Your task to perform on an android device: remove spam from my inbox in the gmail app Image 0: 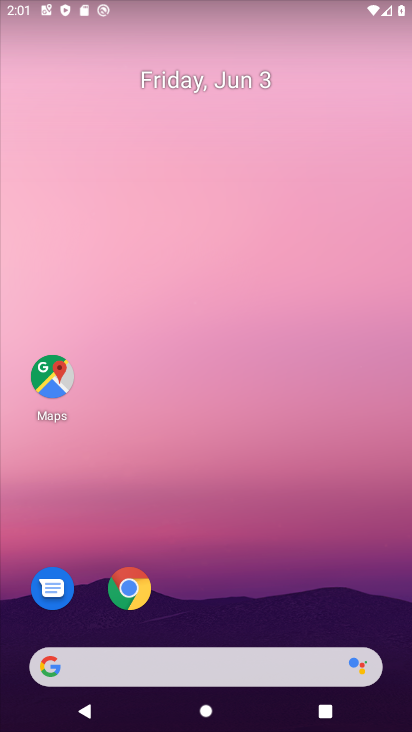
Step 0: drag from (245, 596) to (211, 189)
Your task to perform on an android device: remove spam from my inbox in the gmail app Image 1: 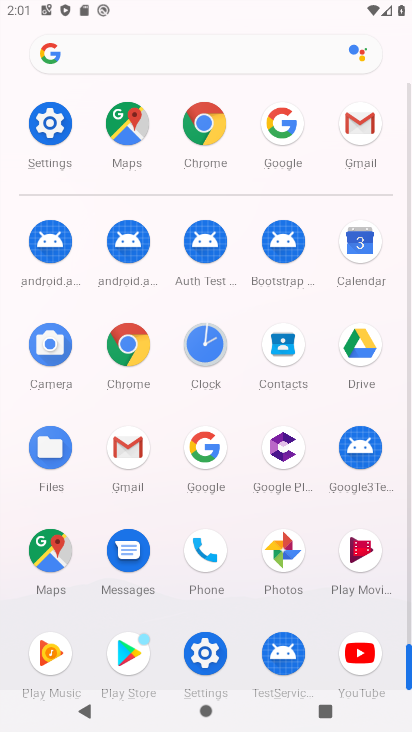
Step 1: drag from (157, 209) to (169, 69)
Your task to perform on an android device: remove spam from my inbox in the gmail app Image 2: 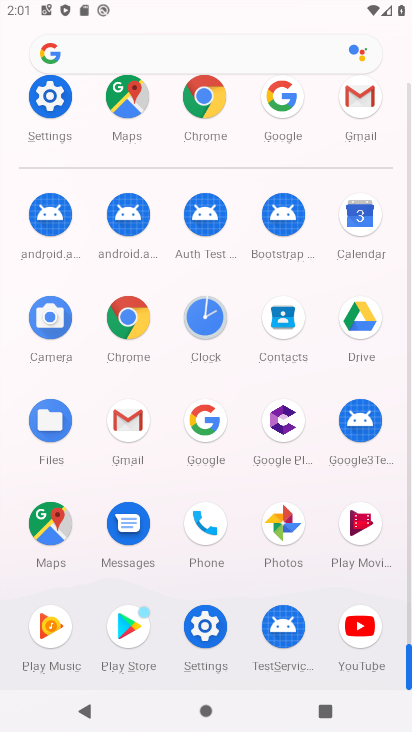
Step 2: click (144, 419)
Your task to perform on an android device: remove spam from my inbox in the gmail app Image 3: 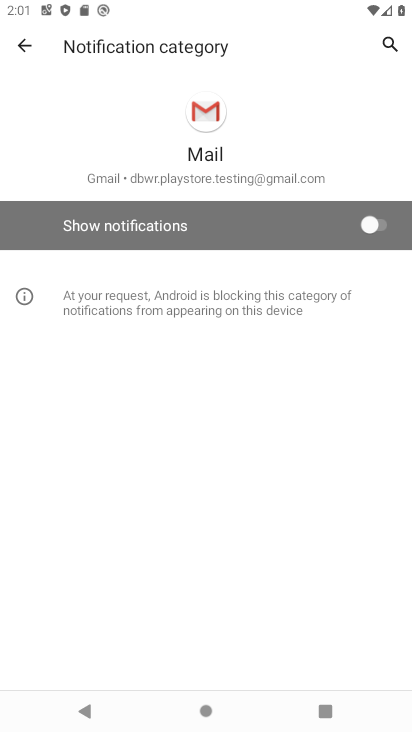
Step 3: press back button
Your task to perform on an android device: remove spam from my inbox in the gmail app Image 4: 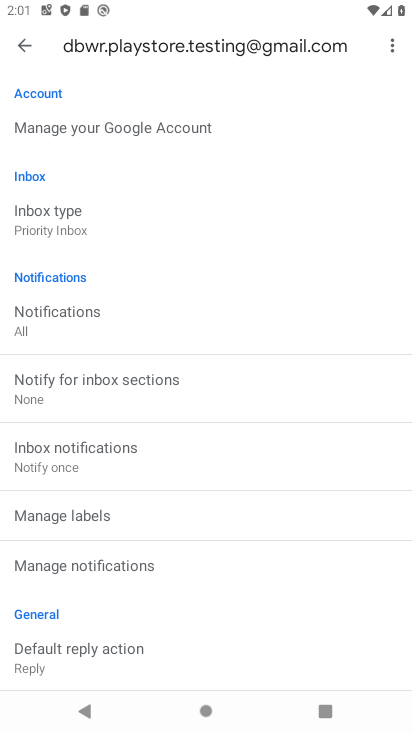
Step 4: press back button
Your task to perform on an android device: remove spam from my inbox in the gmail app Image 5: 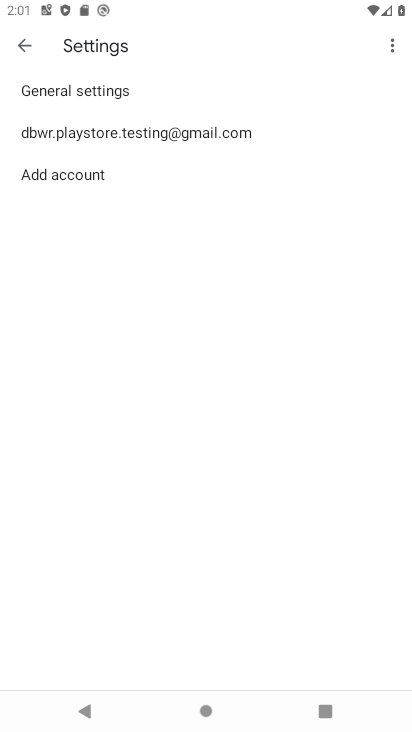
Step 5: press back button
Your task to perform on an android device: remove spam from my inbox in the gmail app Image 6: 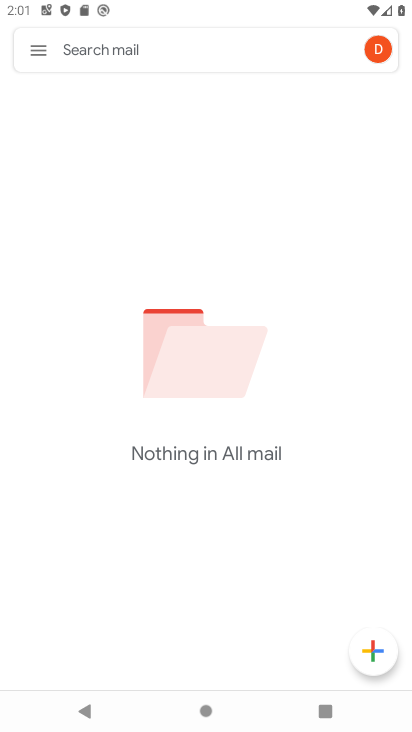
Step 6: click (34, 52)
Your task to perform on an android device: remove spam from my inbox in the gmail app Image 7: 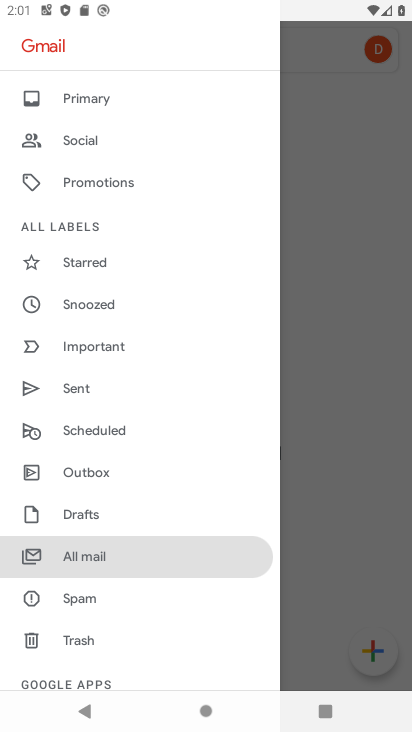
Step 7: click (84, 603)
Your task to perform on an android device: remove spam from my inbox in the gmail app Image 8: 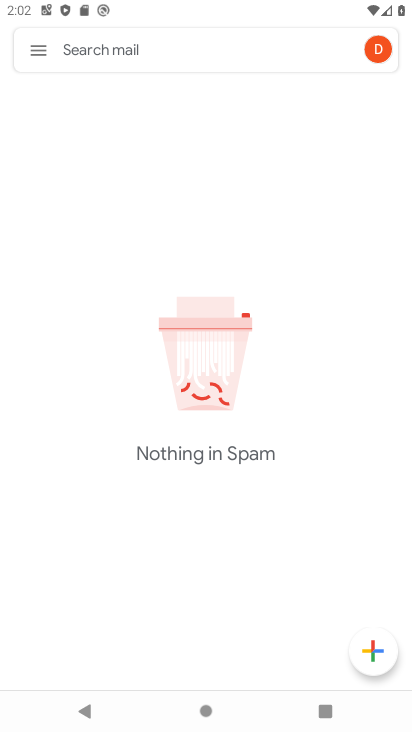
Step 8: task complete